Your task to perform on an android device: Open Youtube and go to the subscriptions tab Image 0: 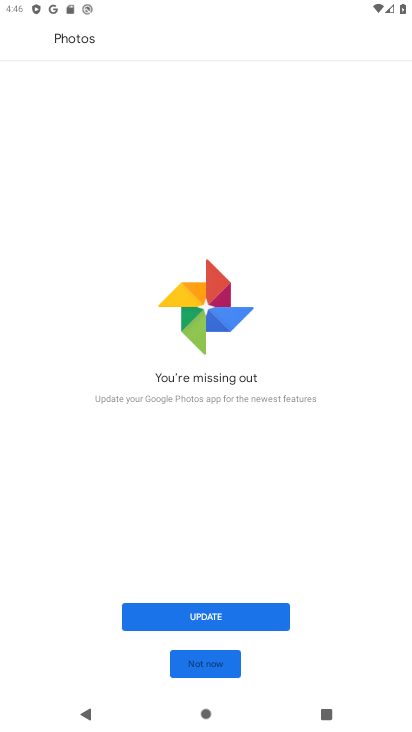
Step 0: press home button
Your task to perform on an android device: Open Youtube and go to the subscriptions tab Image 1: 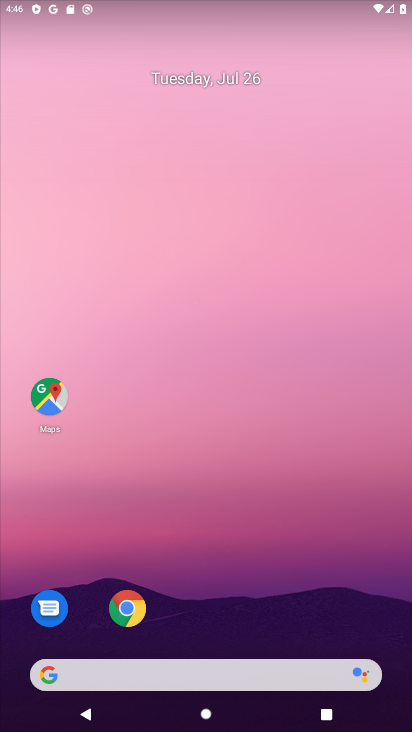
Step 1: drag from (234, 662) to (203, 238)
Your task to perform on an android device: Open Youtube and go to the subscriptions tab Image 2: 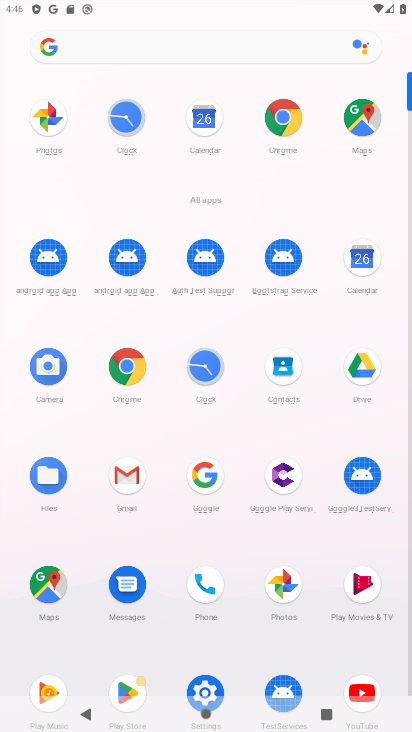
Step 2: drag from (292, 653) to (281, 254)
Your task to perform on an android device: Open Youtube and go to the subscriptions tab Image 3: 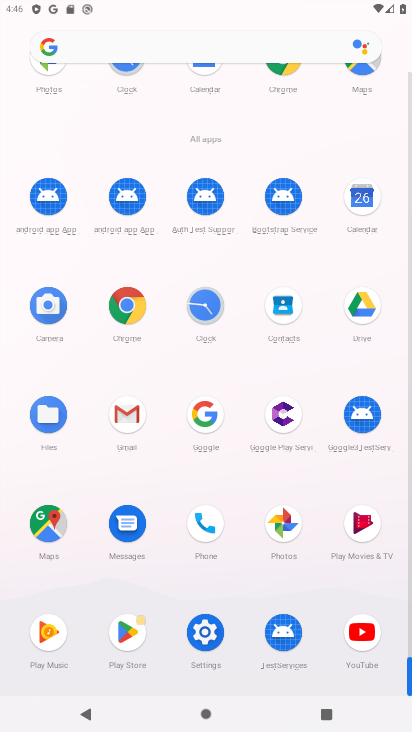
Step 3: click (374, 639)
Your task to perform on an android device: Open Youtube and go to the subscriptions tab Image 4: 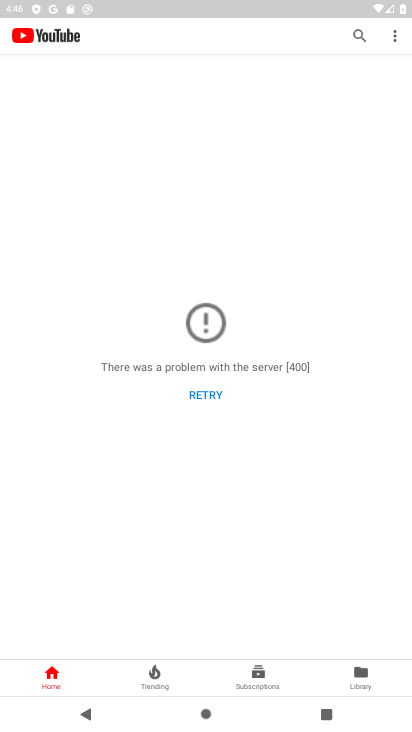
Step 4: click (265, 674)
Your task to perform on an android device: Open Youtube and go to the subscriptions tab Image 5: 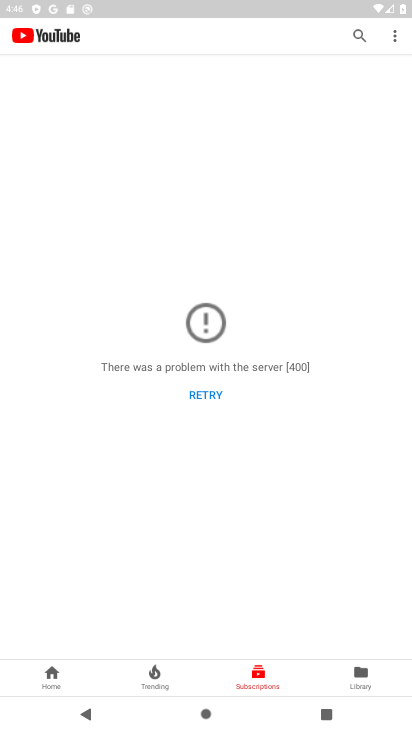
Step 5: task complete